Your task to perform on an android device: Open my contact list Image 0: 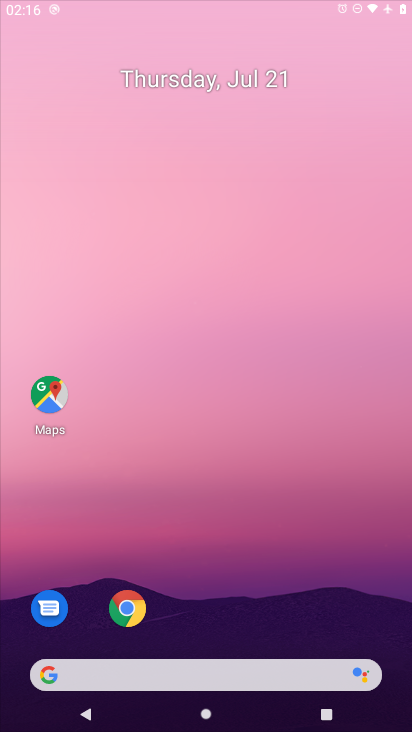
Step 0: press home button
Your task to perform on an android device: Open my contact list Image 1: 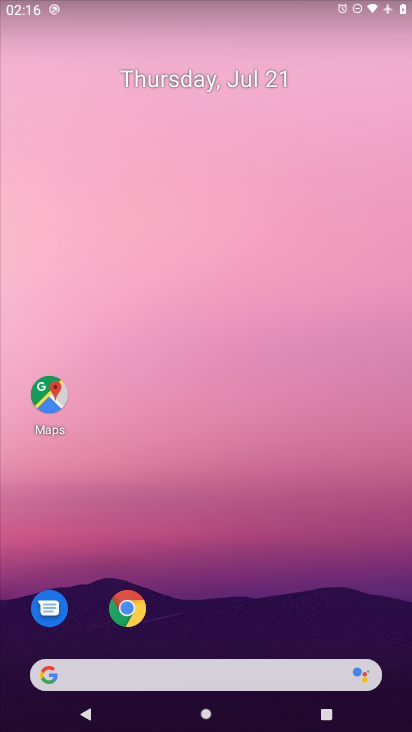
Step 1: drag from (237, 547) to (238, 148)
Your task to perform on an android device: Open my contact list Image 2: 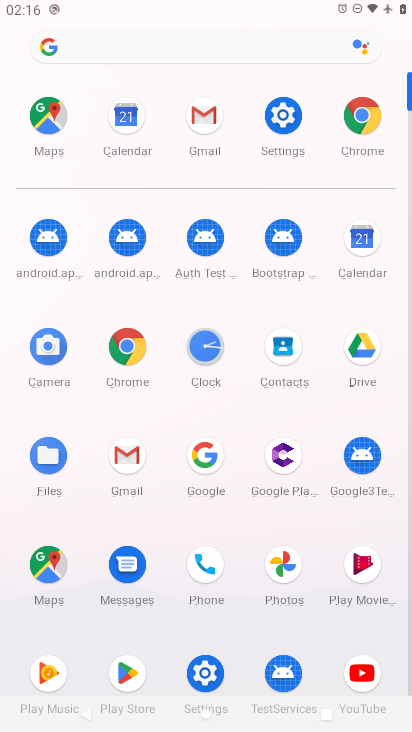
Step 2: click (281, 356)
Your task to perform on an android device: Open my contact list Image 3: 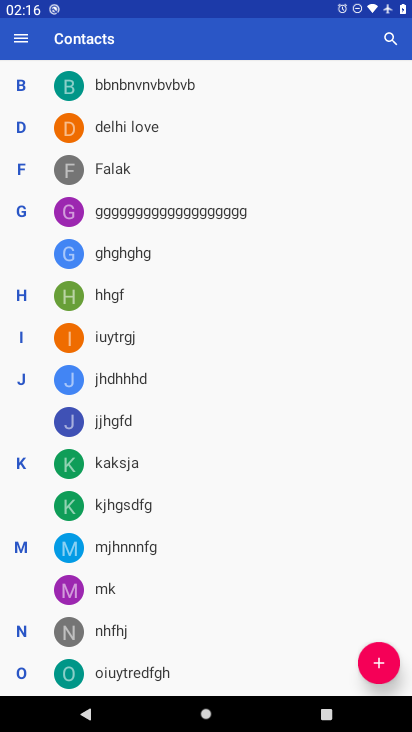
Step 3: task complete